Your task to perform on an android device: turn on showing notifications on the lock screen Image 0: 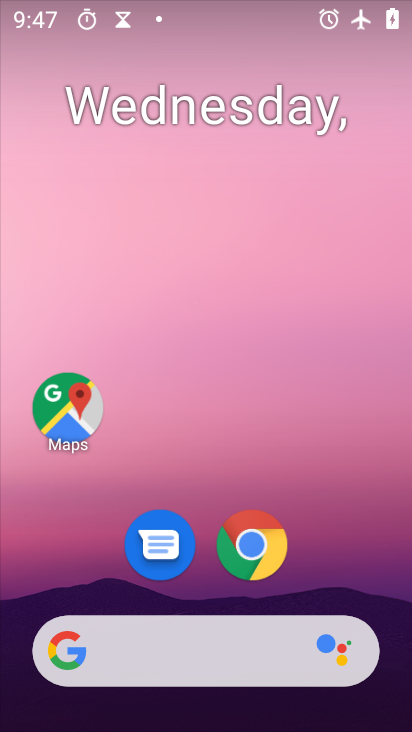
Step 0: press home button
Your task to perform on an android device: turn on showing notifications on the lock screen Image 1: 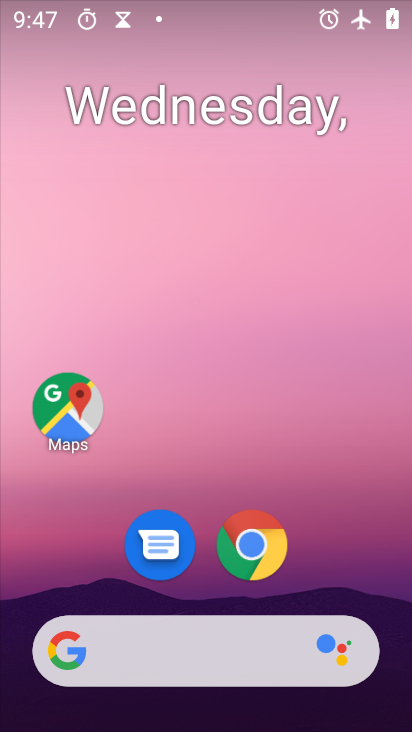
Step 1: drag from (186, 658) to (345, 116)
Your task to perform on an android device: turn on showing notifications on the lock screen Image 2: 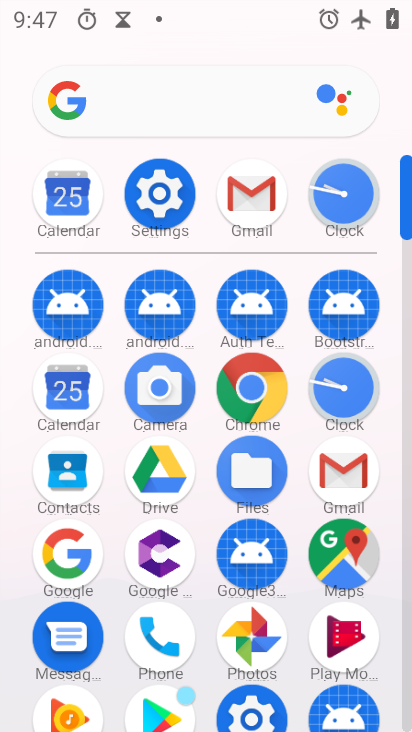
Step 2: click (168, 202)
Your task to perform on an android device: turn on showing notifications on the lock screen Image 3: 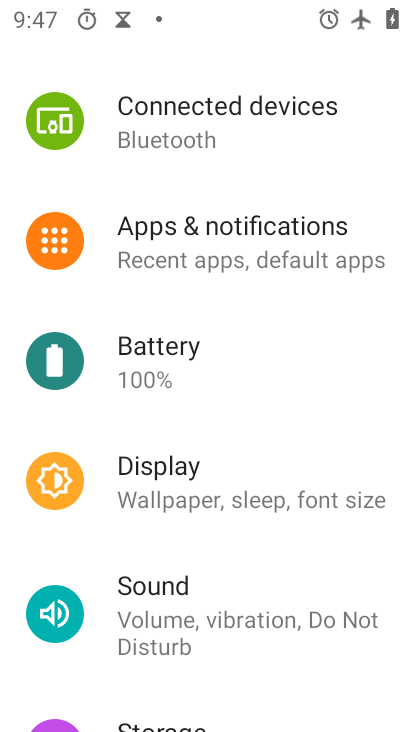
Step 3: click (237, 247)
Your task to perform on an android device: turn on showing notifications on the lock screen Image 4: 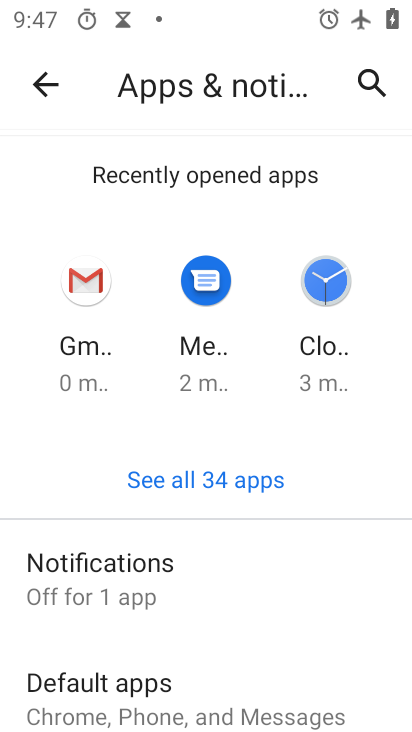
Step 4: click (146, 586)
Your task to perform on an android device: turn on showing notifications on the lock screen Image 5: 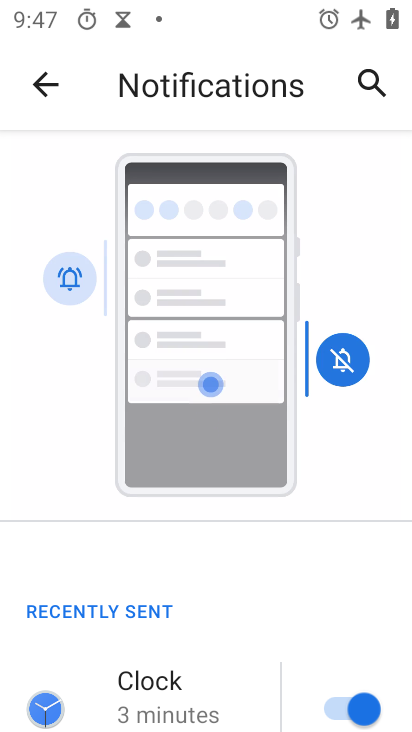
Step 5: drag from (255, 683) to (404, 72)
Your task to perform on an android device: turn on showing notifications on the lock screen Image 6: 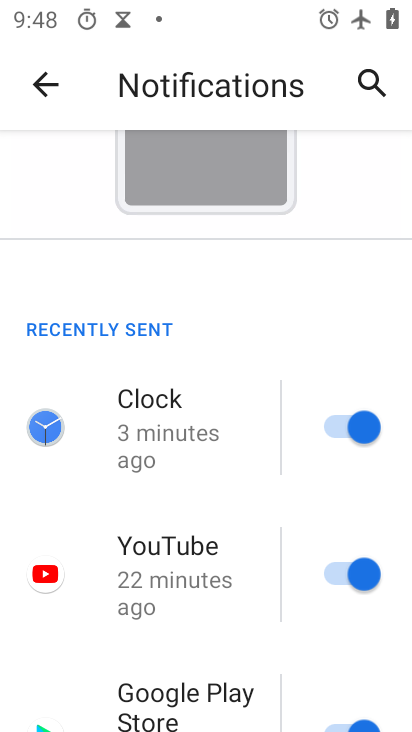
Step 6: drag from (272, 679) to (383, 98)
Your task to perform on an android device: turn on showing notifications on the lock screen Image 7: 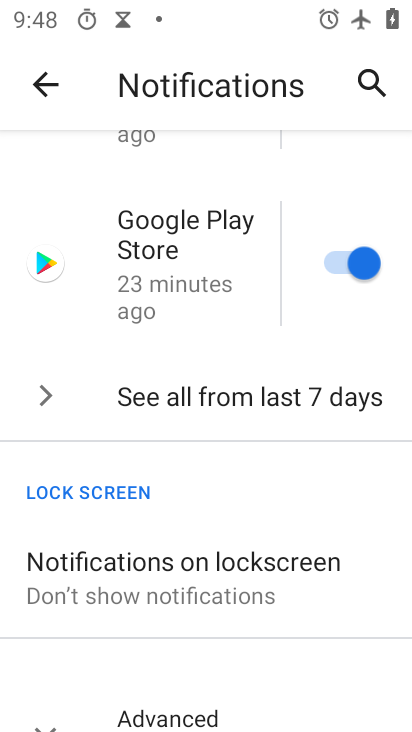
Step 7: click (237, 565)
Your task to perform on an android device: turn on showing notifications on the lock screen Image 8: 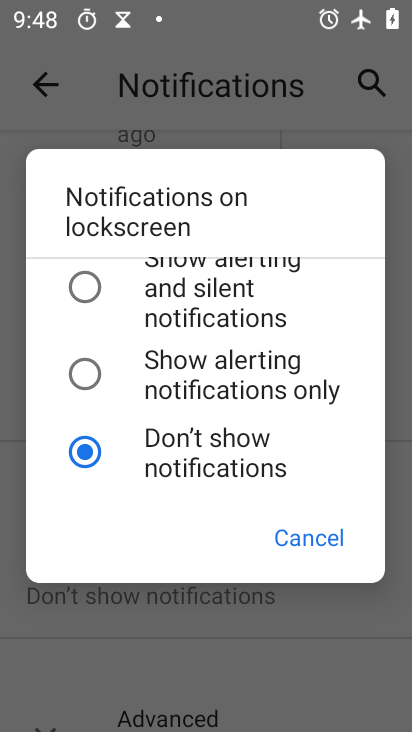
Step 8: drag from (183, 323) to (150, 494)
Your task to perform on an android device: turn on showing notifications on the lock screen Image 9: 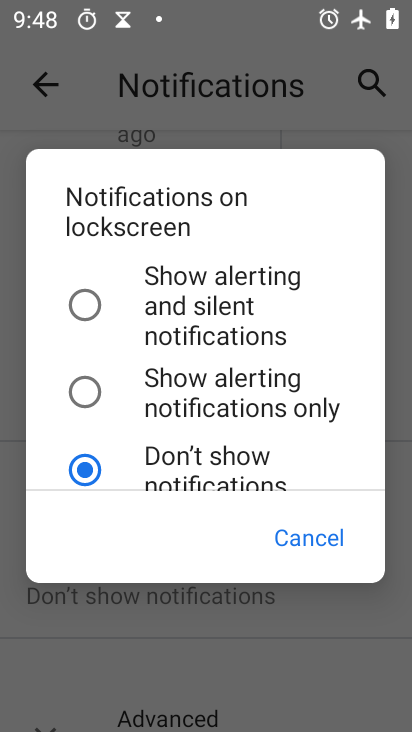
Step 9: click (82, 303)
Your task to perform on an android device: turn on showing notifications on the lock screen Image 10: 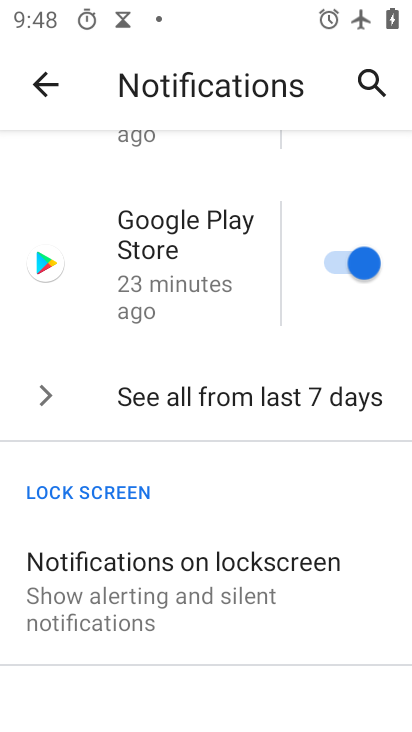
Step 10: task complete